Your task to perform on an android device: visit the assistant section in the google photos Image 0: 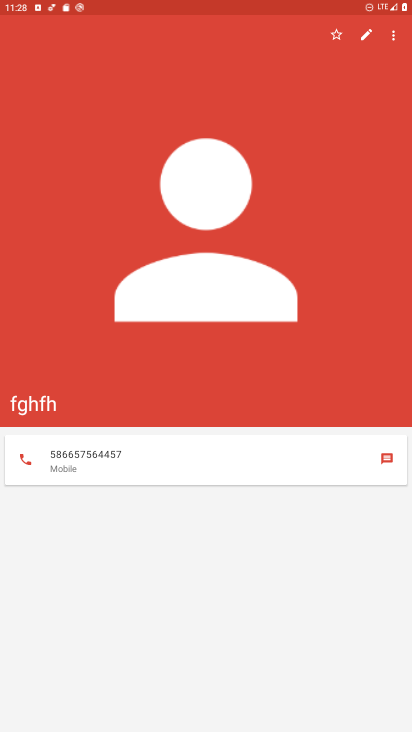
Step 0: press home button
Your task to perform on an android device: visit the assistant section in the google photos Image 1: 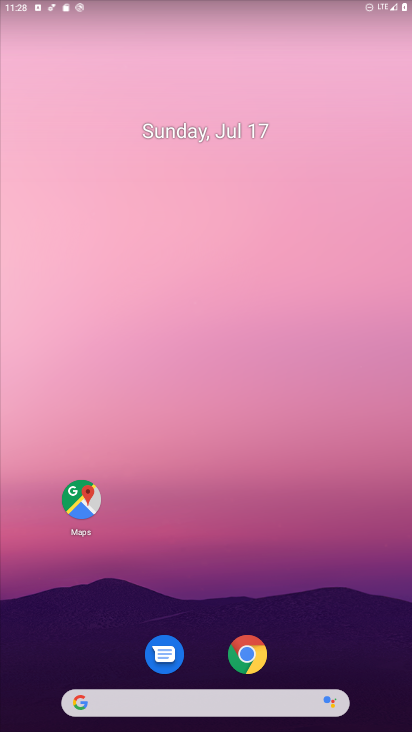
Step 1: drag from (196, 610) to (228, 122)
Your task to perform on an android device: visit the assistant section in the google photos Image 2: 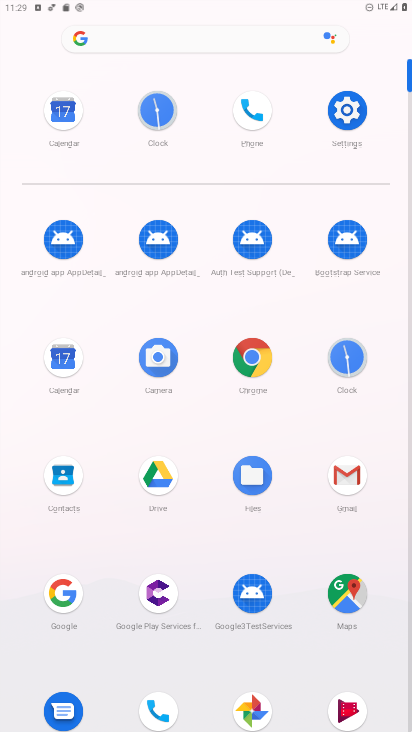
Step 2: click (251, 704)
Your task to perform on an android device: visit the assistant section in the google photos Image 3: 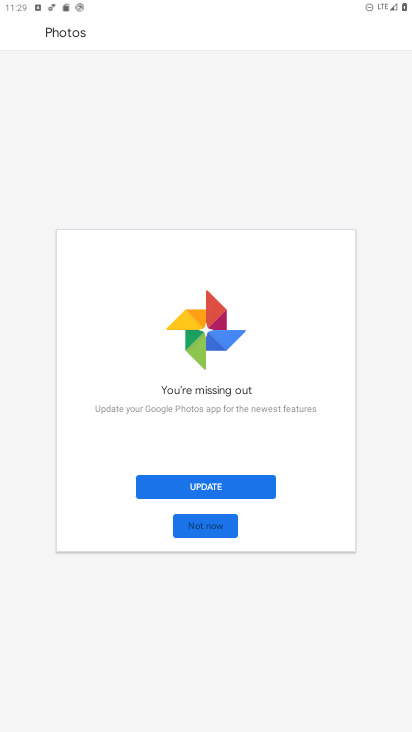
Step 3: click (222, 523)
Your task to perform on an android device: visit the assistant section in the google photos Image 4: 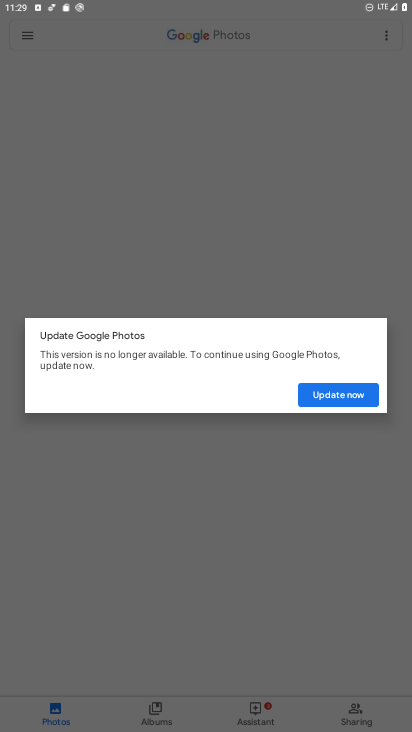
Step 4: click (339, 385)
Your task to perform on an android device: visit the assistant section in the google photos Image 5: 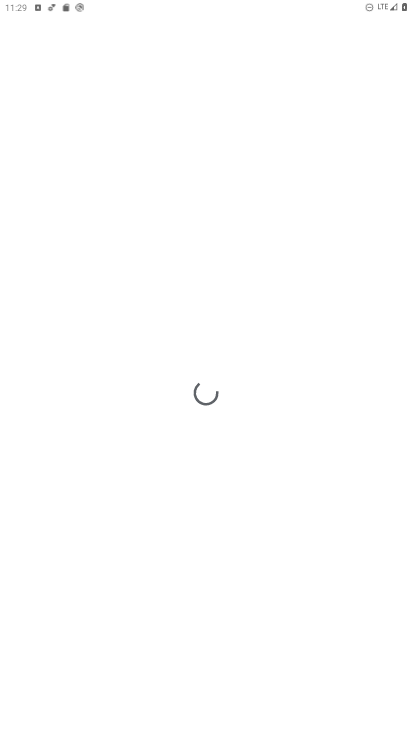
Step 5: click (261, 715)
Your task to perform on an android device: visit the assistant section in the google photos Image 6: 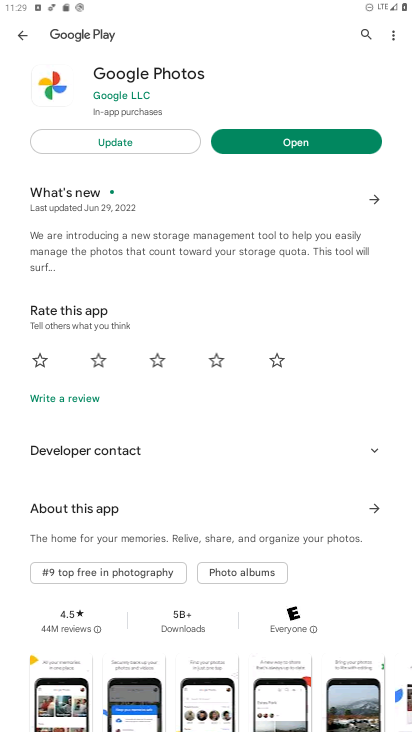
Step 6: click (253, 143)
Your task to perform on an android device: visit the assistant section in the google photos Image 7: 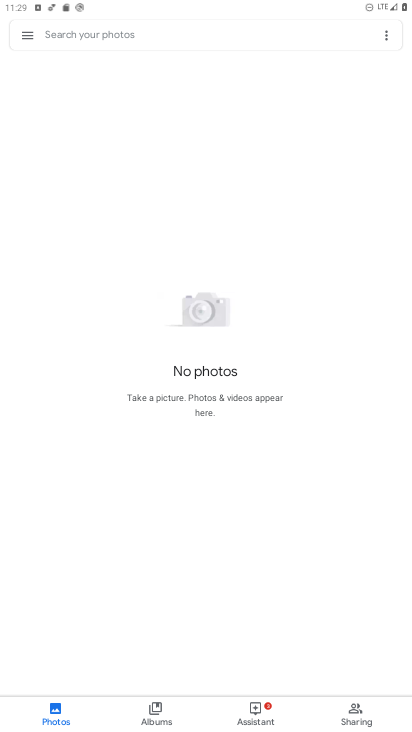
Step 7: click (259, 714)
Your task to perform on an android device: visit the assistant section in the google photos Image 8: 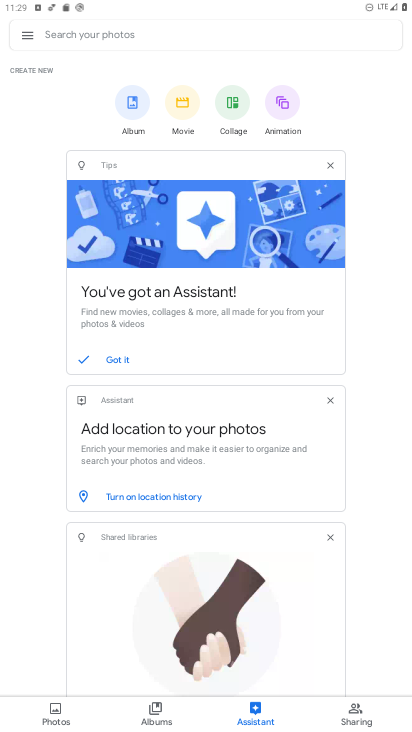
Step 8: task complete